Your task to perform on an android device: Show me the alarms in the clock app Image 0: 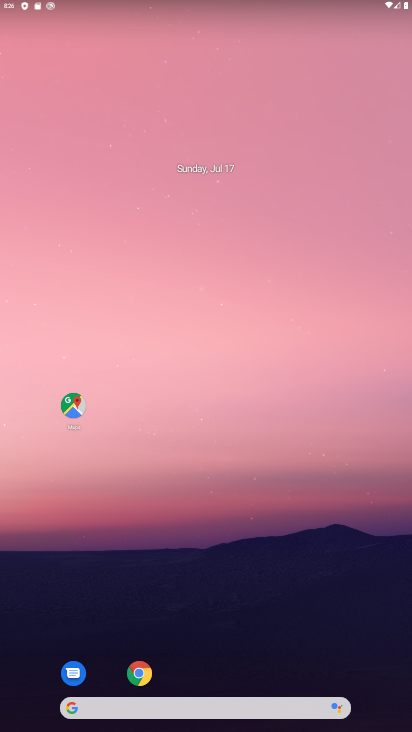
Step 0: drag from (273, 680) to (163, 65)
Your task to perform on an android device: Show me the alarms in the clock app Image 1: 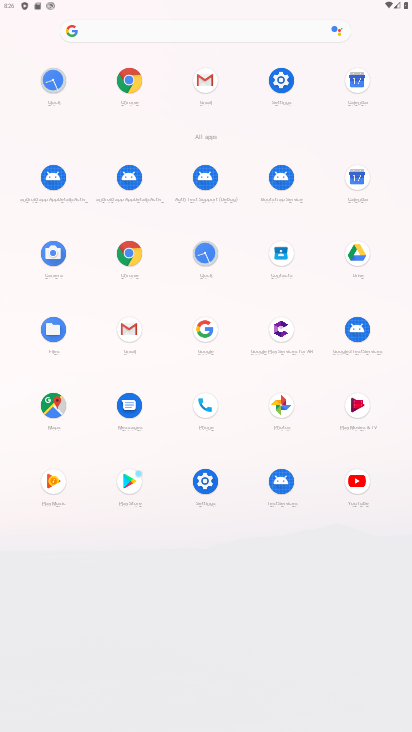
Step 1: click (47, 81)
Your task to perform on an android device: Show me the alarms in the clock app Image 2: 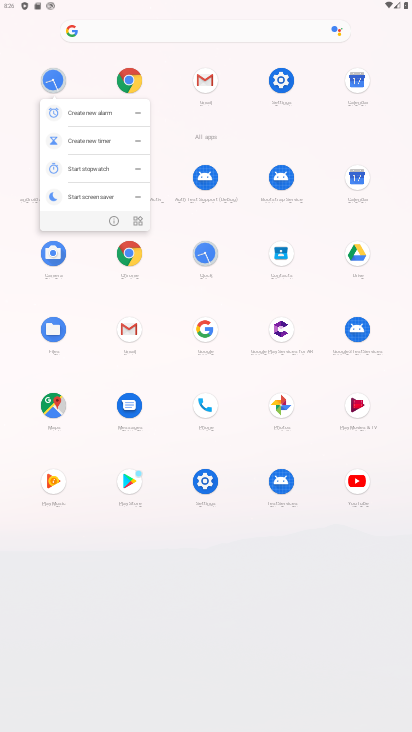
Step 2: click (47, 75)
Your task to perform on an android device: Show me the alarms in the clock app Image 3: 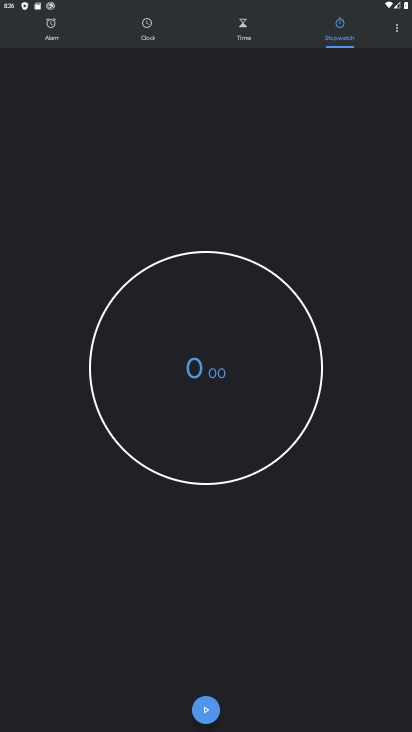
Step 3: click (51, 38)
Your task to perform on an android device: Show me the alarms in the clock app Image 4: 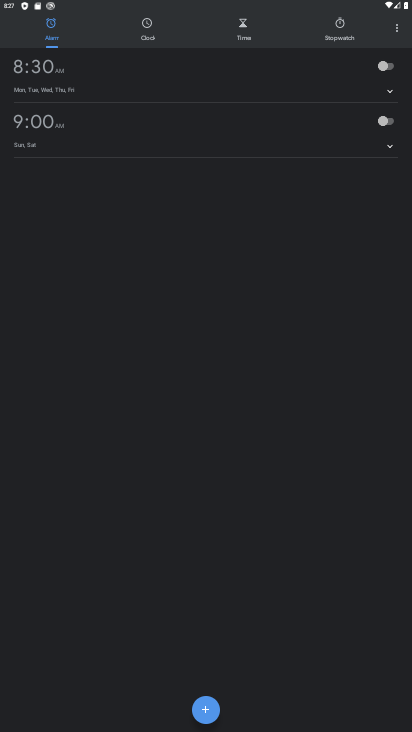
Step 4: task complete